Your task to perform on an android device: Open calendar and show me the first week of next month Image 0: 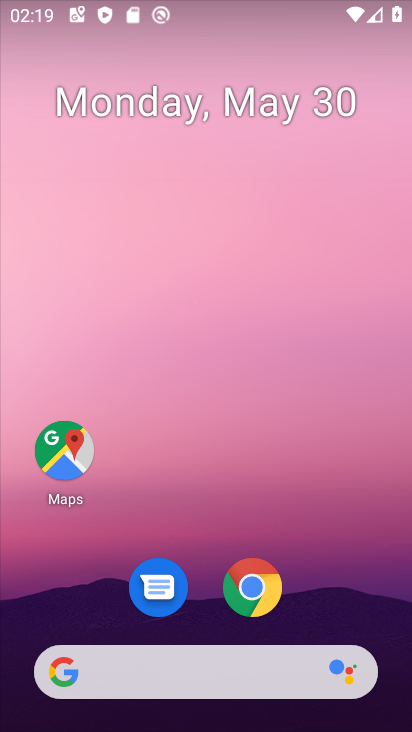
Step 0: drag from (120, 709) to (146, 48)
Your task to perform on an android device: Open calendar and show me the first week of next month Image 1: 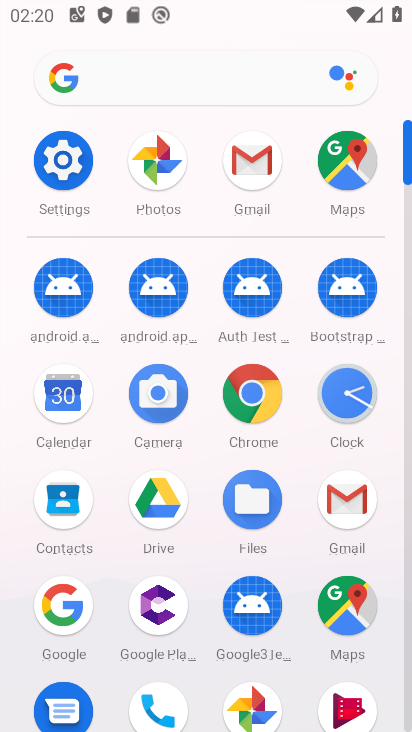
Step 1: click (43, 411)
Your task to perform on an android device: Open calendar and show me the first week of next month Image 2: 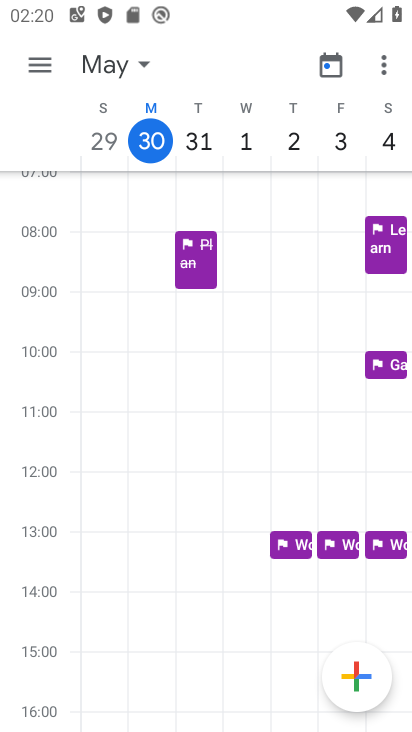
Step 2: click (134, 64)
Your task to perform on an android device: Open calendar and show me the first week of next month Image 3: 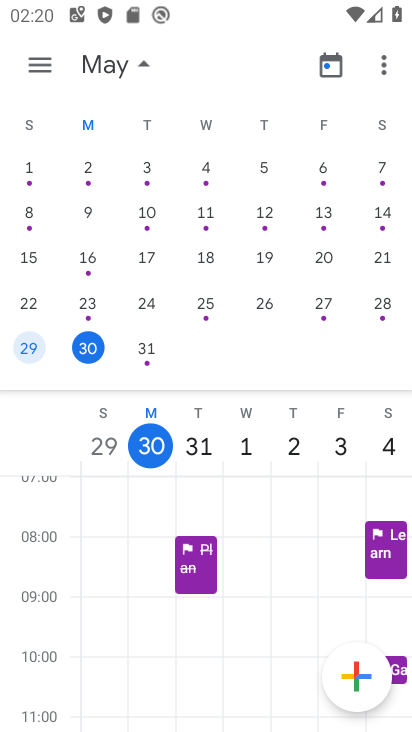
Step 3: drag from (364, 361) to (7, 318)
Your task to perform on an android device: Open calendar and show me the first week of next month Image 4: 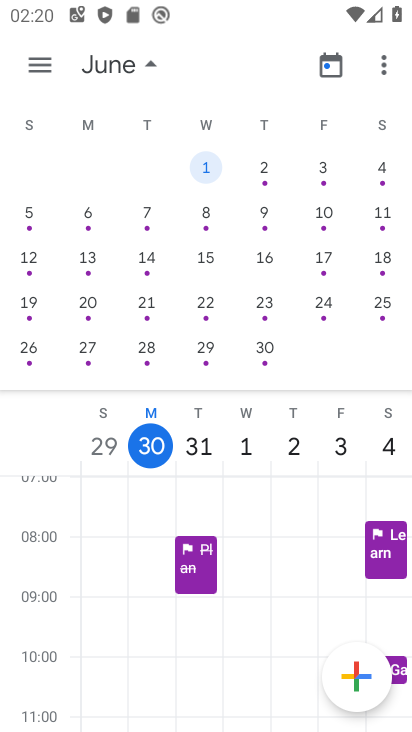
Step 4: click (152, 62)
Your task to perform on an android device: Open calendar and show me the first week of next month Image 5: 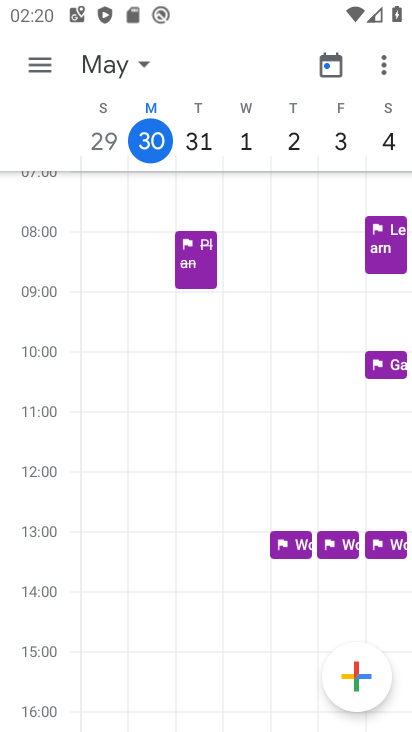
Step 5: task complete